Your task to perform on an android device: Open display settings Image 0: 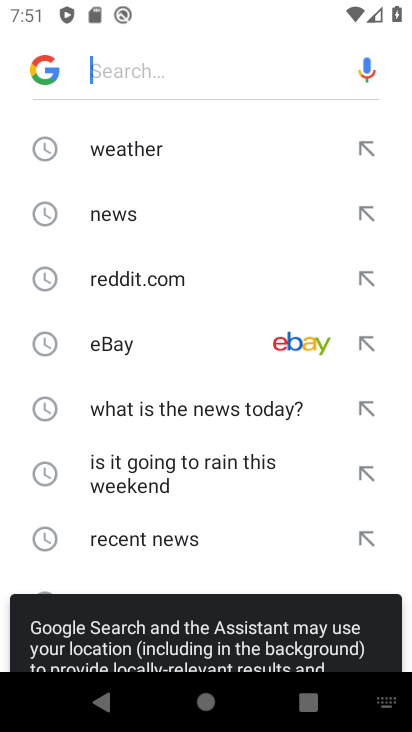
Step 0: press home button
Your task to perform on an android device: Open display settings Image 1: 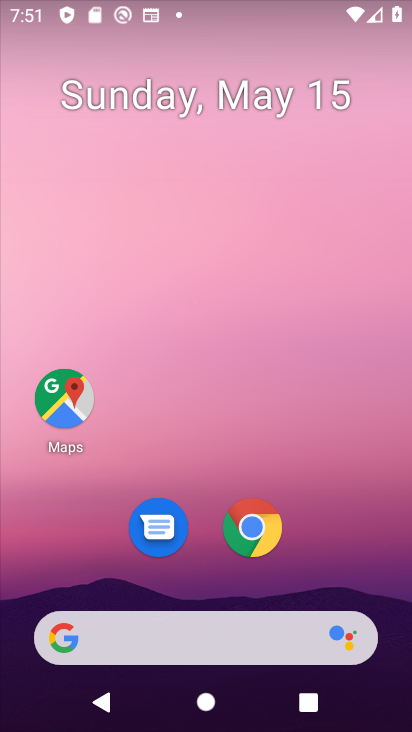
Step 1: drag from (199, 587) to (228, 142)
Your task to perform on an android device: Open display settings Image 2: 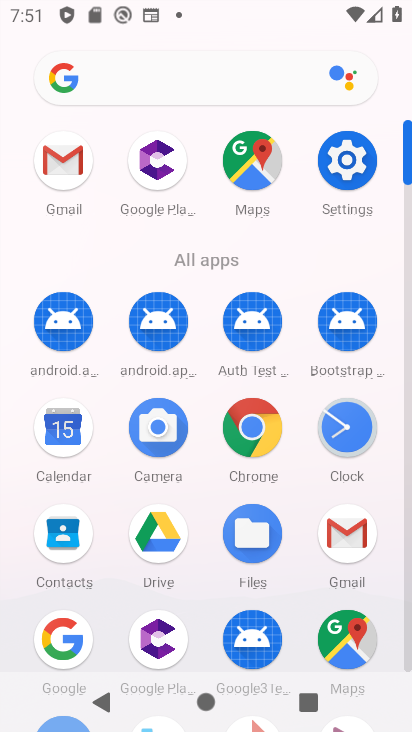
Step 2: click (324, 170)
Your task to perform on an android device: Open display settings Image 3: 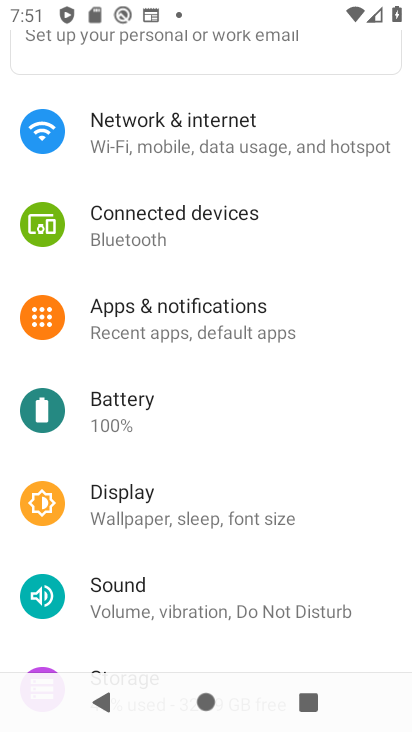
Step 3: click (106, 489)
Your task to perform on an android device: Open display settings Image 4: 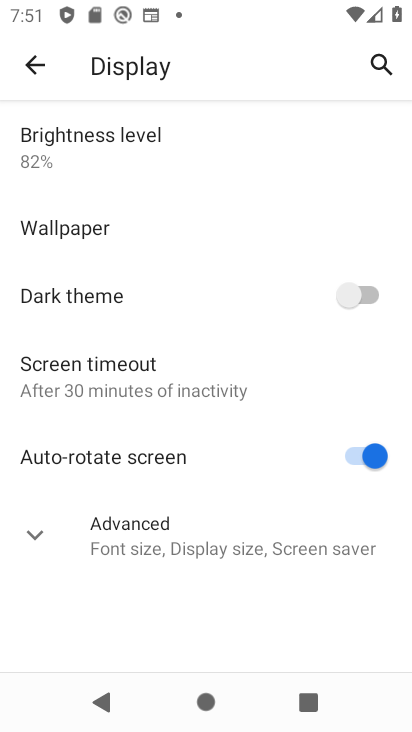
Step 4: task complete